Your task to perform on an android device: all mails in gmail Image 0: 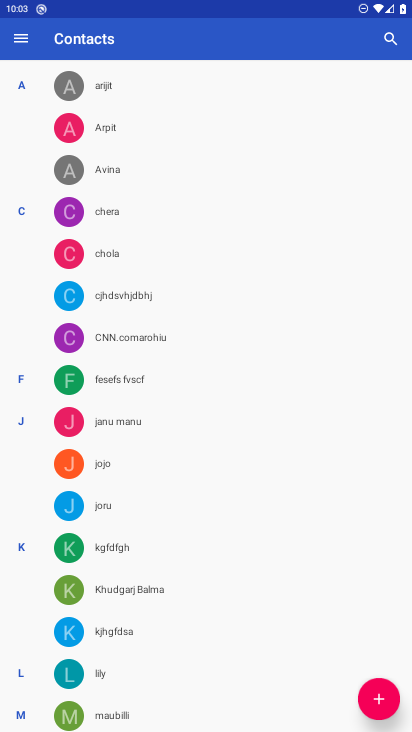
Step 0: press home button
Your task to perform on an android device: all mails in gmail Image 1: 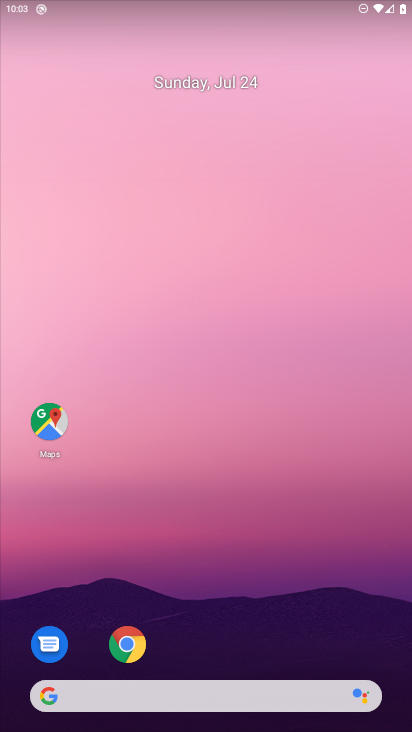
Step 1: drag from (338, 684) to (358, 141)
Your task to perform on an android device: all mails in gmail Image 2: 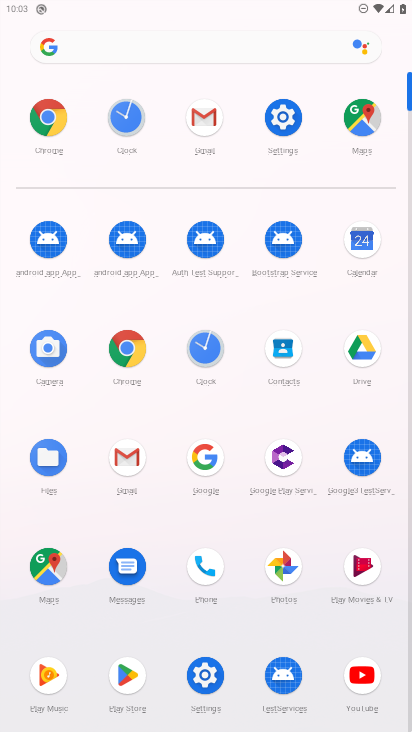
Step 2: click (184, 120)
Your task to perform on an android device: all mails in gmail Image 3: 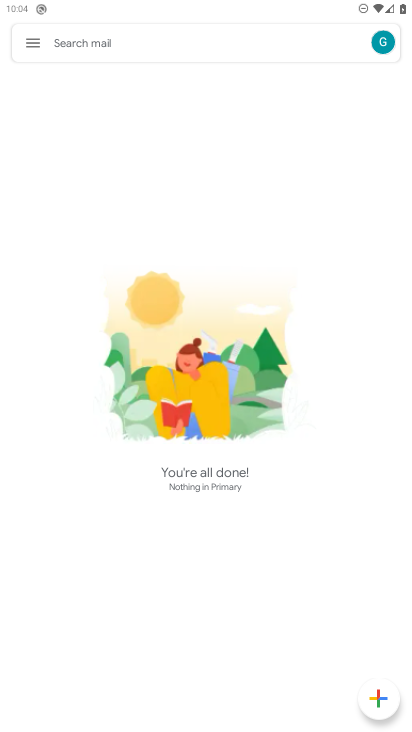
Step 3: click (16, 43)
Your task to perform on an android device: all mails in gmail Image 4: 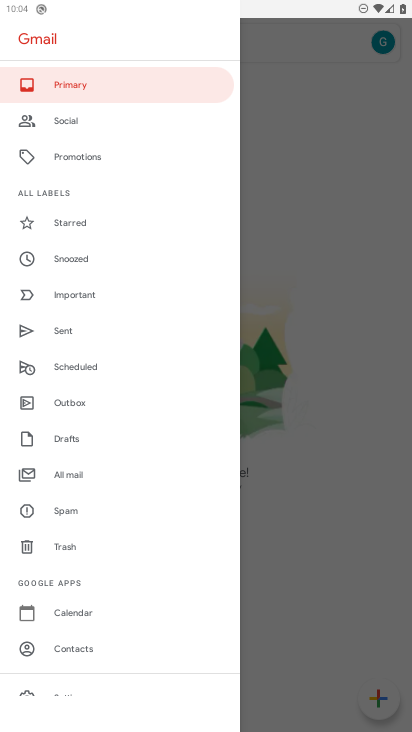
Step 4: click (49, 478)
Your task to perform on an android device: all mails in gmail Image 5: 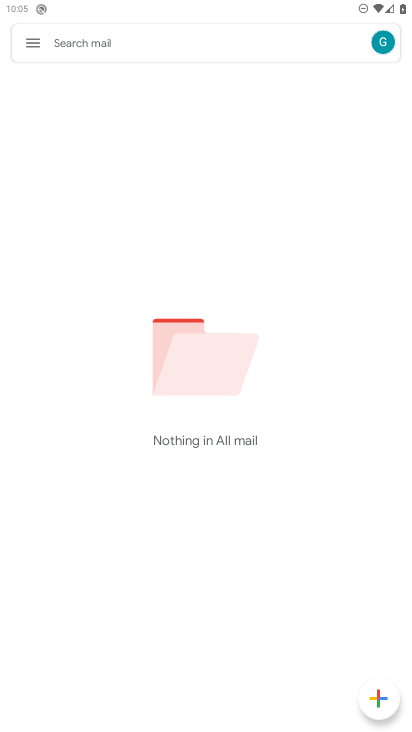
Step 5: task complete